Your task to perform on an android device: open a new tab in the chrome app Image 0: 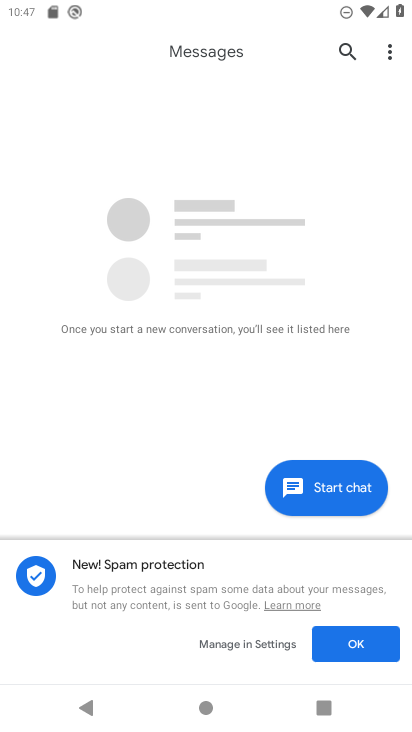
Step 0: press home button
Your task to perform on an android device: open a new tab in the chrome app Image 1: 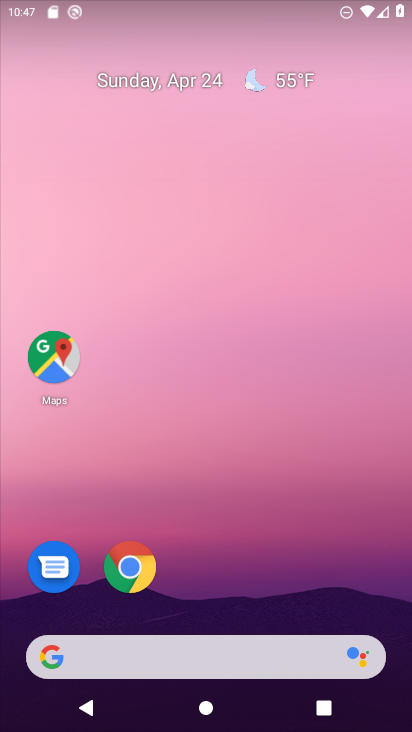
Step 1: click (131, 558)
Your task to perform on an android device: open a new tab in the chrome app Image 2: 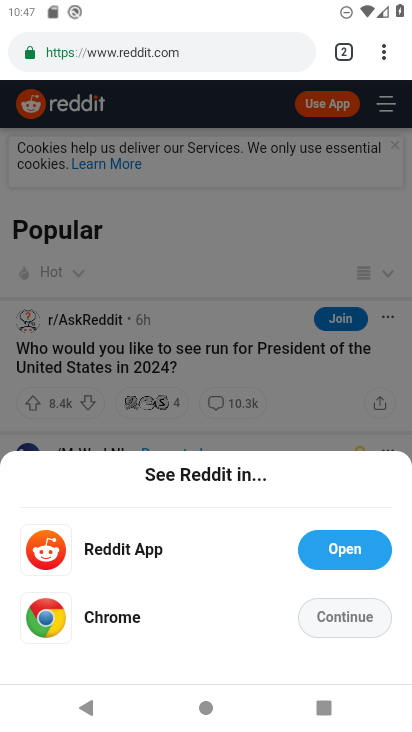
Step 2: press home button
Your task to perform on an android device: open a new tab in the chrome app Image 3: 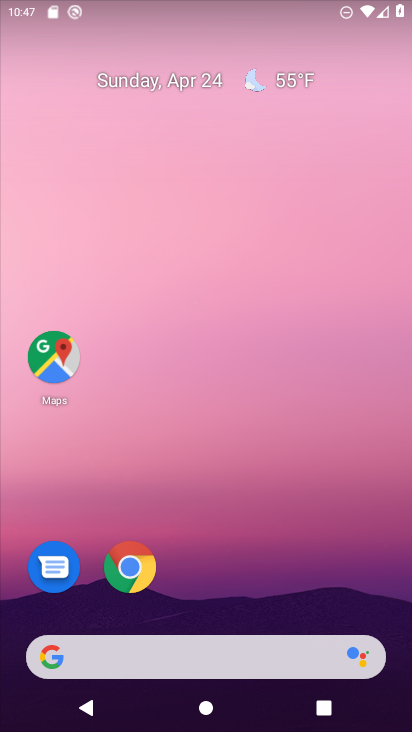
Step 3: click (129, 562)
Your task to perform on an android device: open a new tab in the chrome app Image 4: 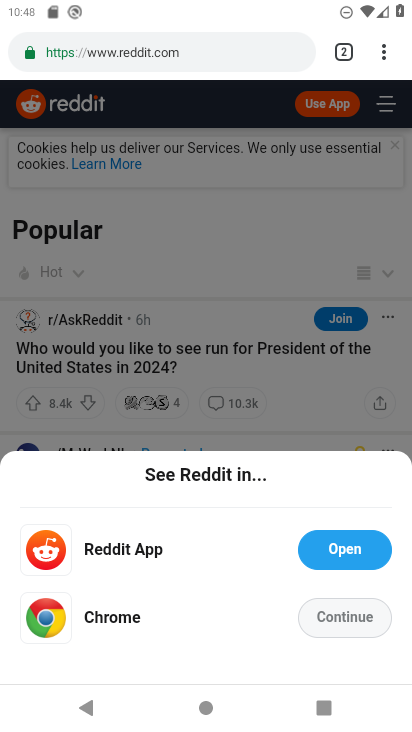
Step 4: click (325, 620)
Your task to perform on an android device: open a new tab in the chrome app Image 5: 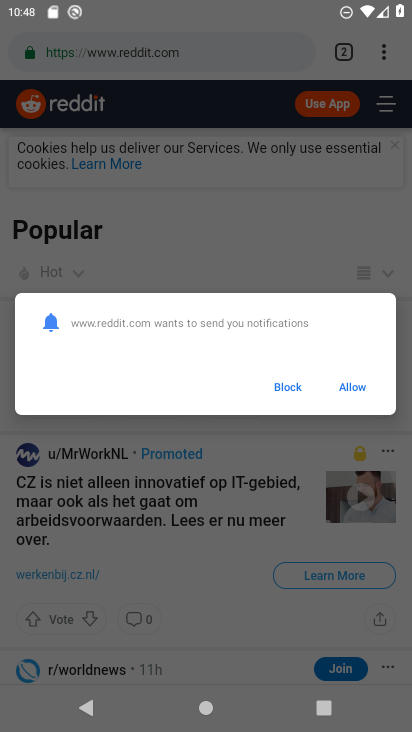
Step 5: click (346, 381)
Your task to perform on an android device: open a new tab in the chrome app Image 6: 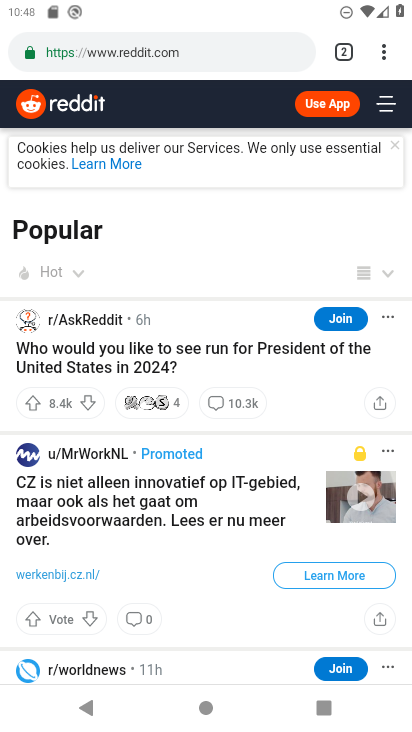
Step 6: click (379, 47)
Your task to perform on an android device: open a new tab in the chrome app Image 7: 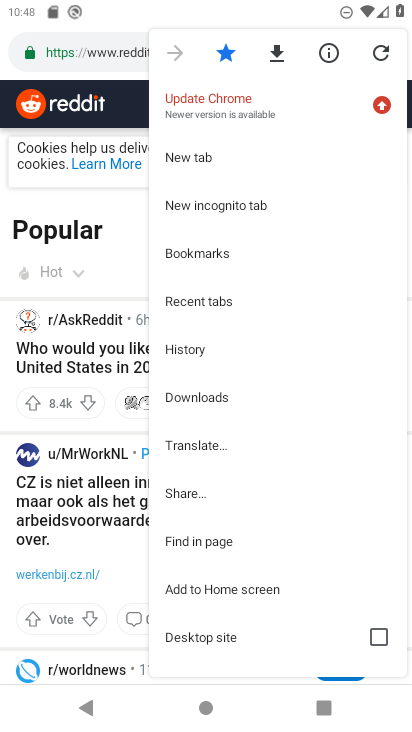
Step 7: drag from (330, 584) to (300, 288)
Your task to perform on an android device: open a new tab in the chrome app Image 8: 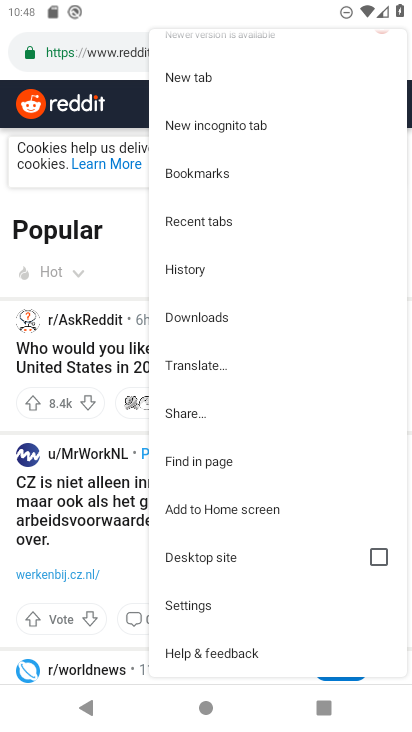
Step 8: click (191, 597)
Your task to perform on an android device: open a new tab in the chrome app Image 9: 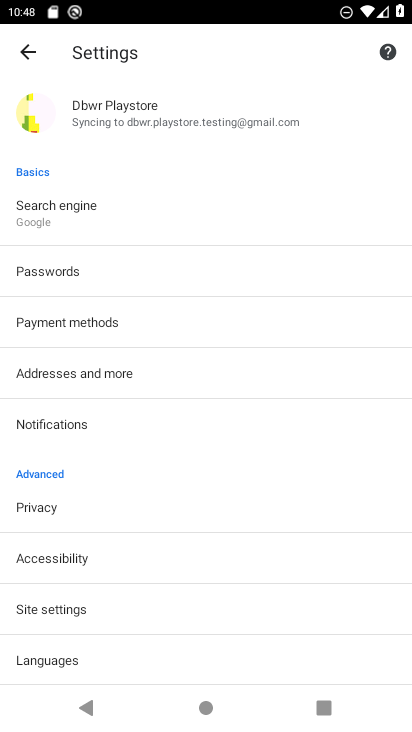
Step 9: click (24, 47)
Your task to perform on an android device: open a new tab in the chrome app Image 10: 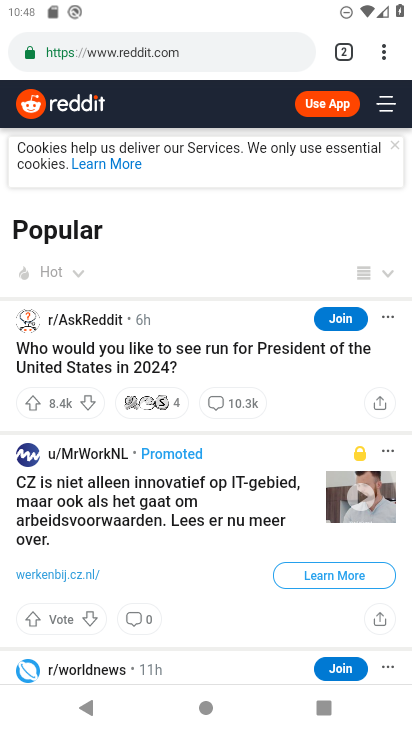
Step 10: click (383, 53)
Your task to perform on an android device: open a new tab in the chrome app Image 11: 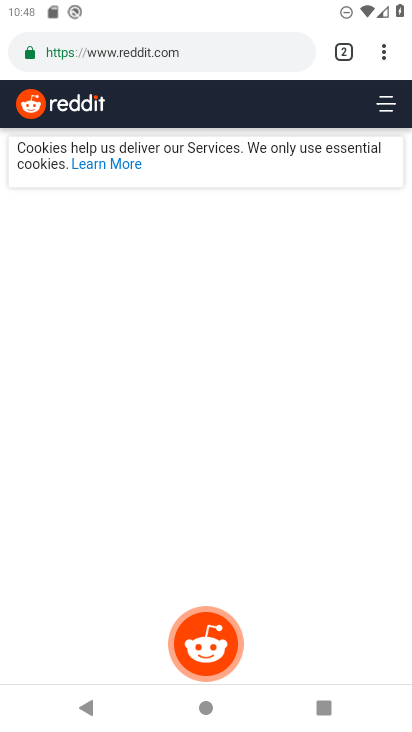
Step 11: click (383, 53)
Your task to perform on an android device: open a new tab in the chrome app Image 12: 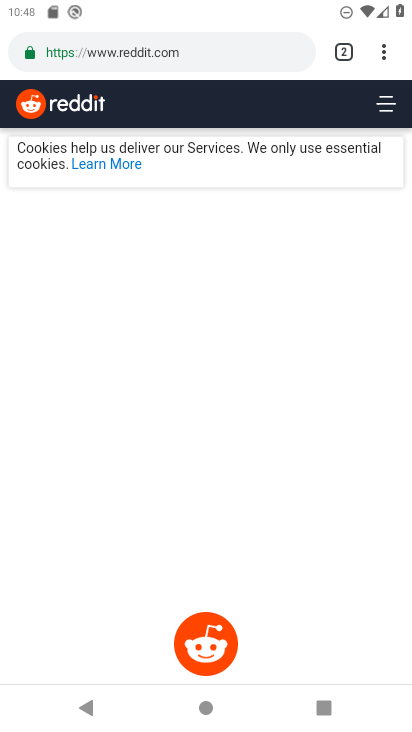
Step 12: click (383, 53)
Your task to perform on an android device: open a new tab in the chrome app Image 13: 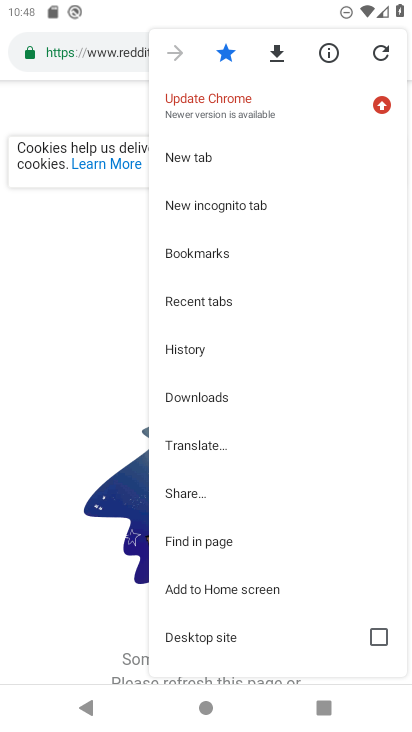
Step 13: click (192, 152)
Your task to perform on an android device: open a new tab in the chrome app Image 14: 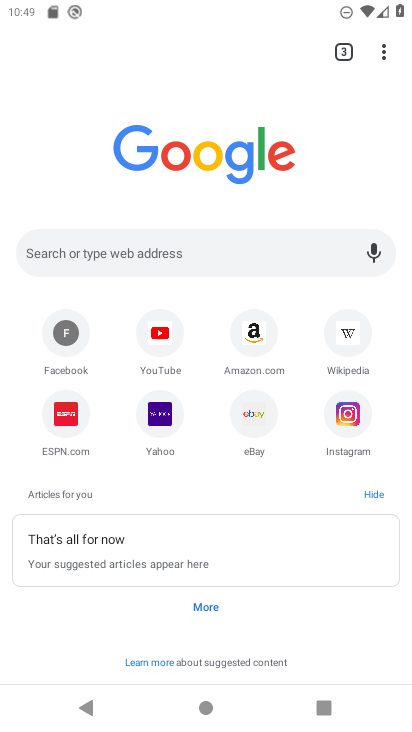
Step 14: task complete